Your task to perform on an android device: Open Yahoo.com Image 0: 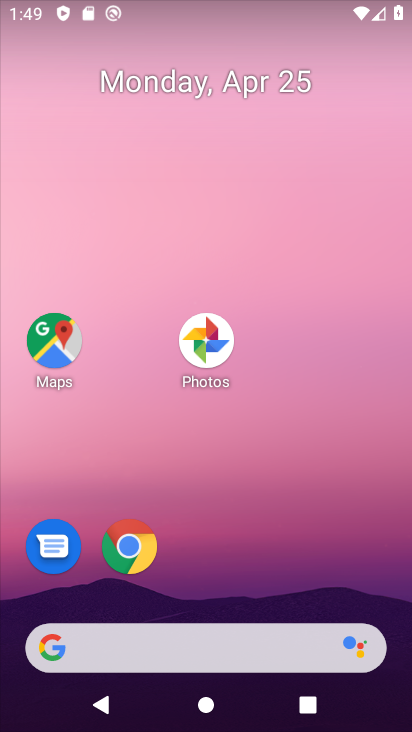
Step 0: drag from (296, 443) to (278, 212)
Your task to perform on an android device: Open Yahoo.com Image 1: 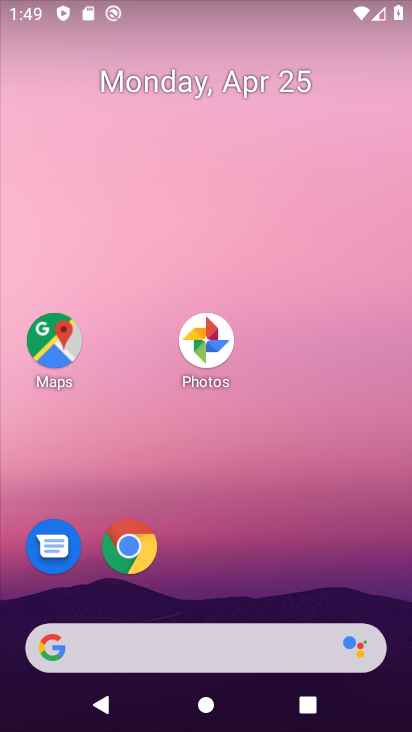
Step 1: drag from (252, 512) to (289, 69)
Your task to perform on an android device: Open Yahoo.com Image 2: 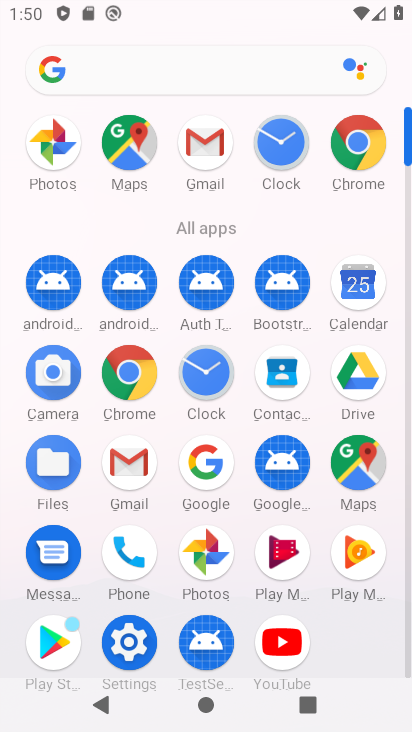
Step 2: click (124, 360)
Your task to perform on an android device: Open Yahoo.com Image 3: 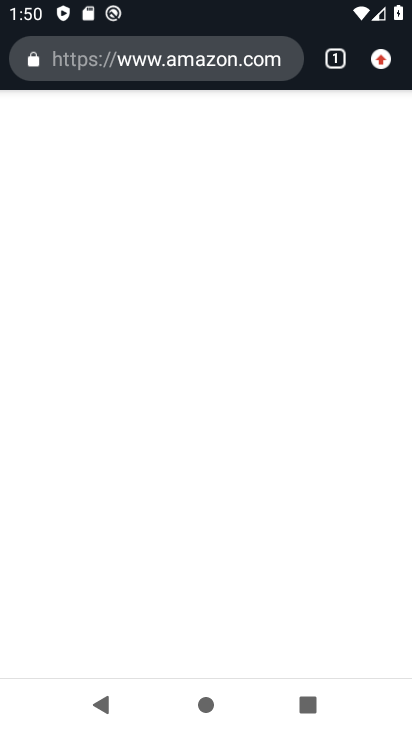
Step 3: click (382, 62)
Your task to perform on an android device: Open Yahoo.com Image 4: 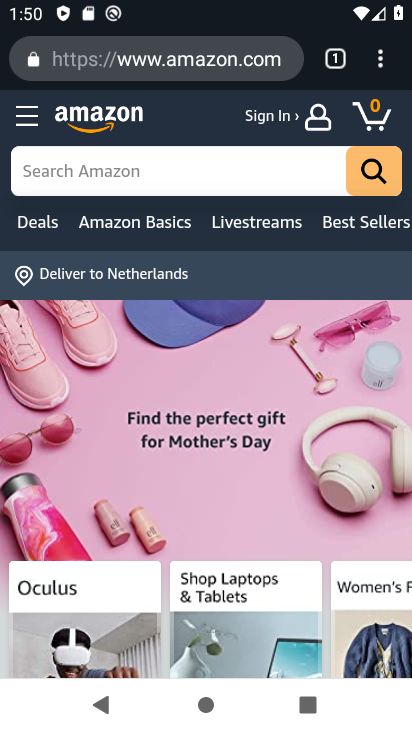
Step 4: click (368, 58)
Your task to perform on an android device: Open Yahoo.com Image 5: 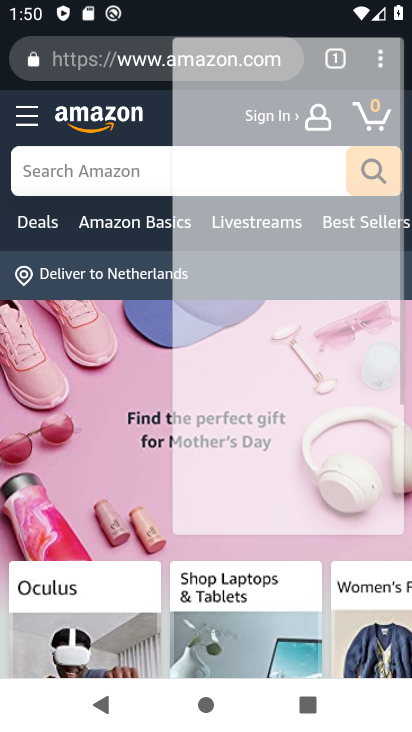
Step 5: click (368, 58)
Your task to perform on an android device: Open Yahoo.com Image 6: 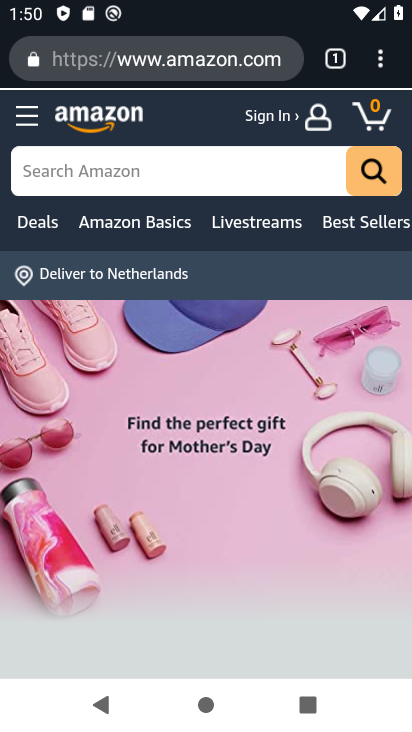
Step 6: click (368, 58)
Your task to perform on an android device: Open Yahoo.com Image 7: 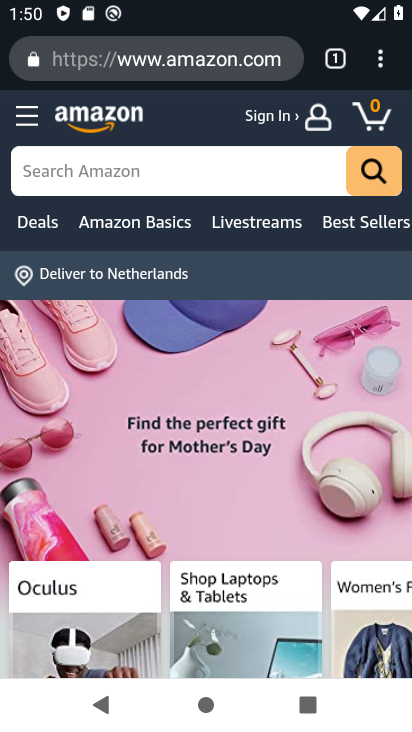
Step 7: click (360, 71)
Your task to perform on an android device: Open Yahoo.com Image 8: 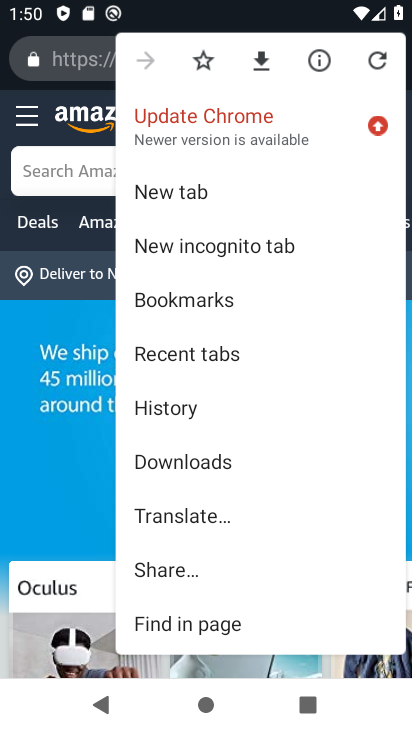
Step 8: click (221, 193)
Your task to perform on an android device: Open Yahoo.com Image 9: 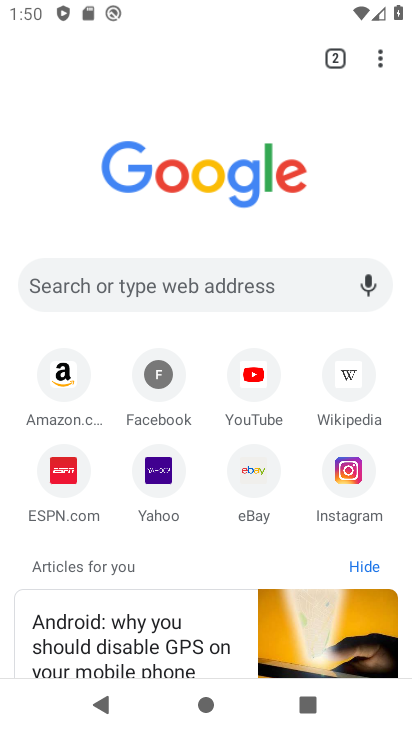
Step 9: click (151, 468)
Your task to perform on an android device: Open Yahoo.com Image 10: 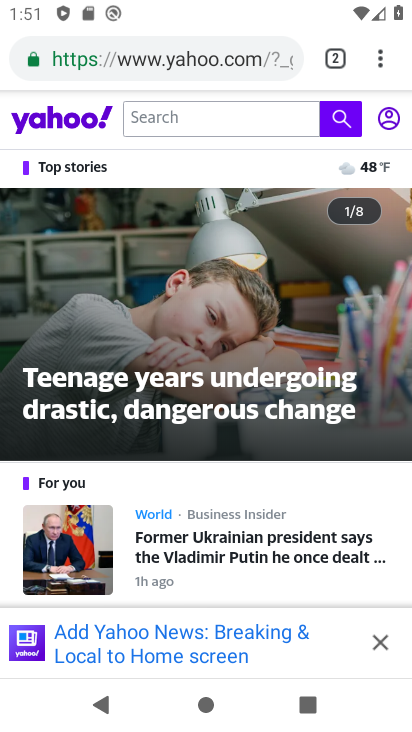
Step 10: task complete